Your task to perform on an android device: Open the calendar app, open the side menu, and click the "Day" option Image 0: 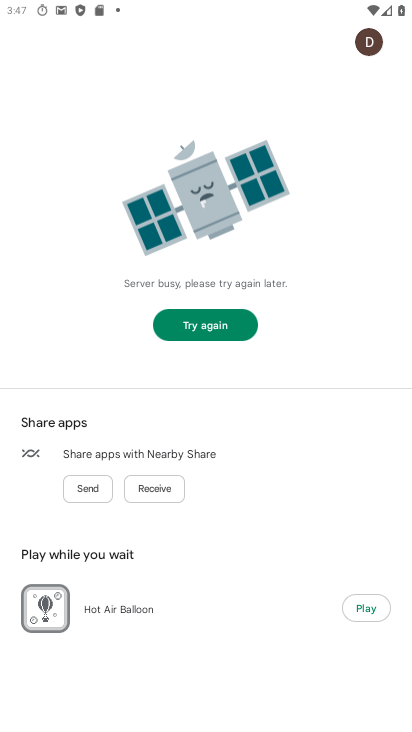
Step 0: press home button
Your task to perform on an android device: Open the calendar app, open the side menu, and click the "Day" option Image 1: 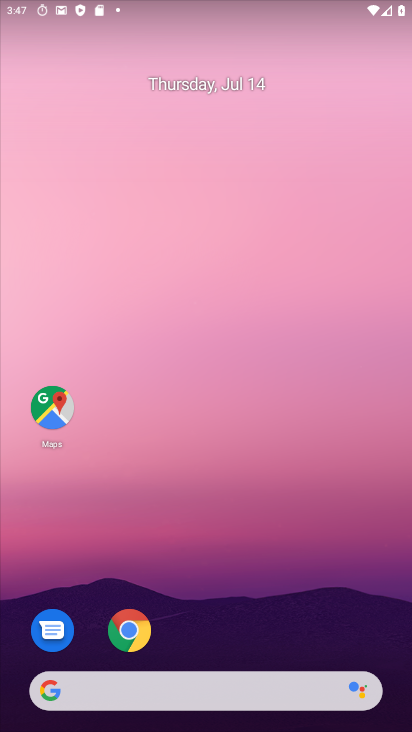
Step 1: drag from (232, 603) to (251, 215)
Your task to perform on an android device: Open the calendar app, open the side menu, and click the "Day" option Image 2: 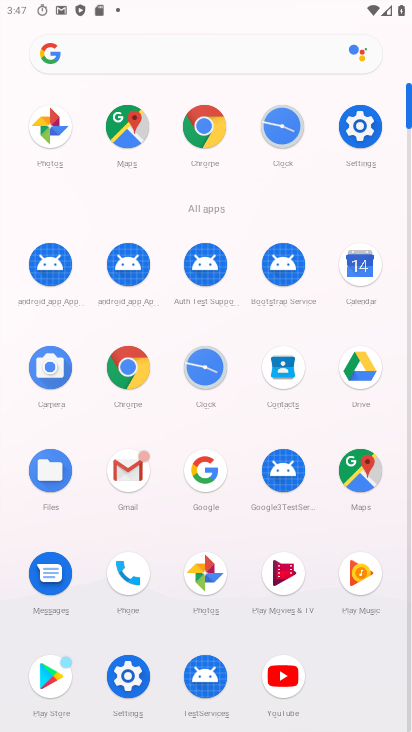
Step 2: click (363, 275)
Your task to perform on an android device: Open the calendar app, open the side menu, and click the "Day" option Image 3: 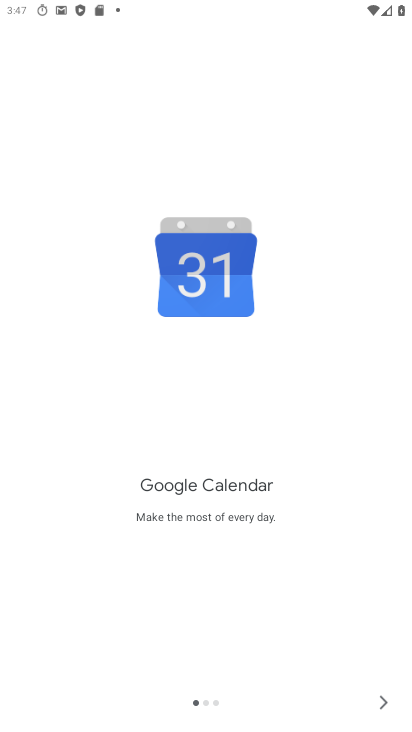
Step 3: click (394, 701)
Your task to perform on an android device: Open the calendar app, open the side menu, and click the "Day" option Image 4: 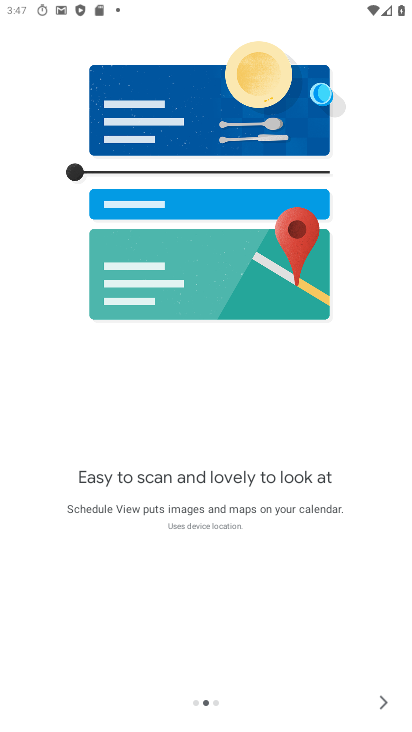
Step 4: click (366, 708)
Your task to perform on an android device: Open the calendar app, open the side menu, and click the "Day" option Image 5: 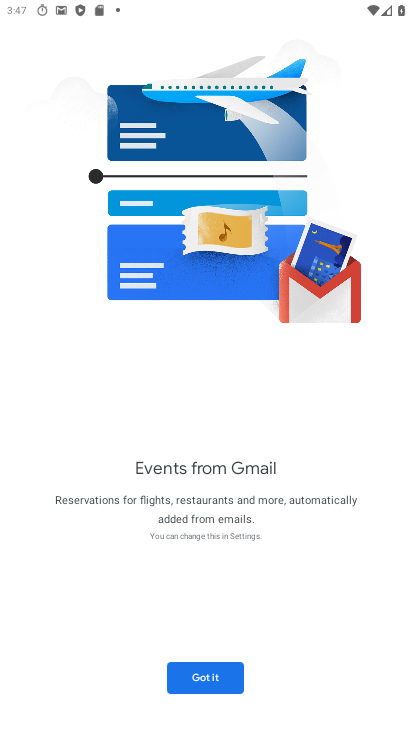
Step 5: click (200, 682)
Your task to perform on an android device: Open the calendar app, open the side menu, and click the "Day" option Image 6: 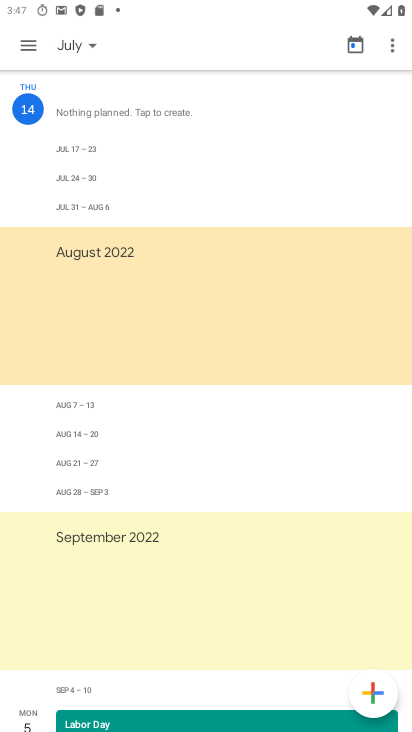
Step 6: click (37, 45)
Your task to perform on an android device: Open the calendar app, open the side menu, and click the "Day" option Image 7: 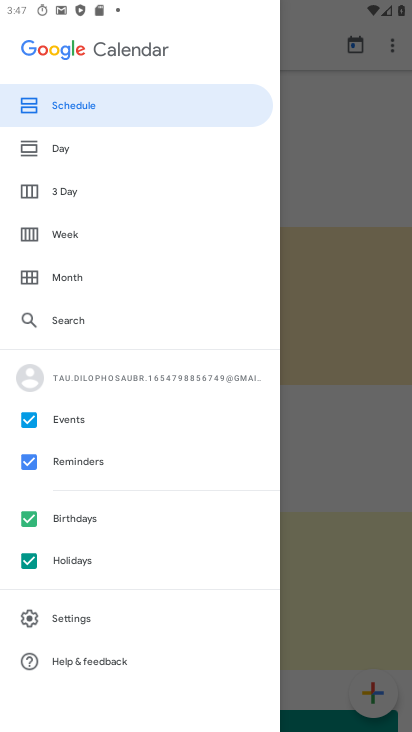
Step 7: click (113, 144)
Your task to perform on an android device: Open the calendar app, open the side menu, and click the "Day" option Image 8: 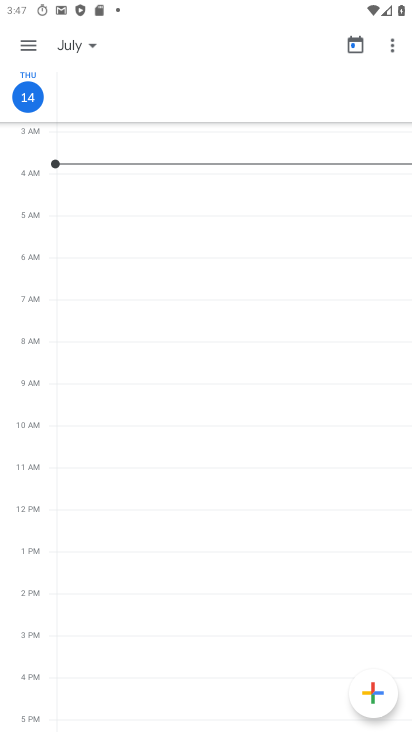
Step 8: task complete